Your task to perform on an android device: turn on translation in the chrome app Image 0: 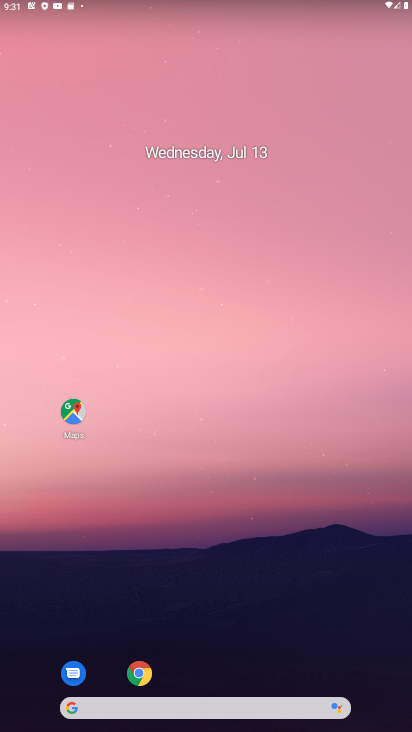
Step 0: click (139, 670)
Your task to perform on an android device: turn on translation in the chrome app Image 1: 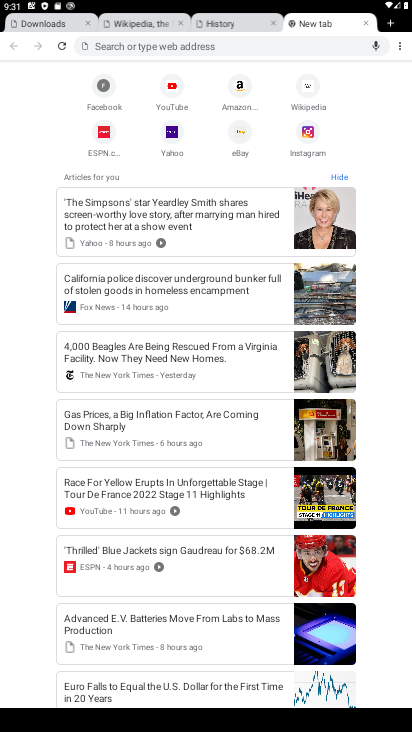
Step 1: click (393, 43)
Your task to perform on an android device: turn on translation in the chrome app Image 2: 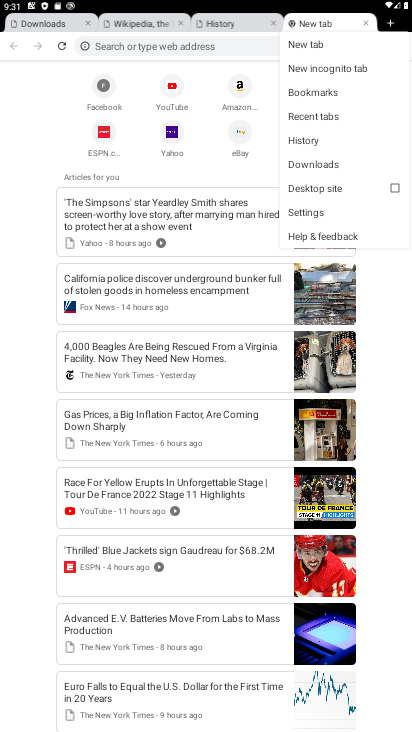
Step 2: click (317, 216)
Your task to perform on an android device: turn on translation in the chrome app Image 3: 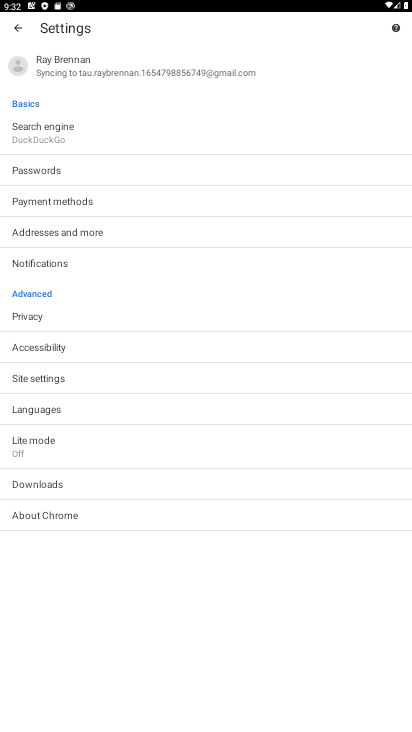
Step 3: click (58, 419)
Your task to perform on an android device: turn on translation in the chrome app Image 4: 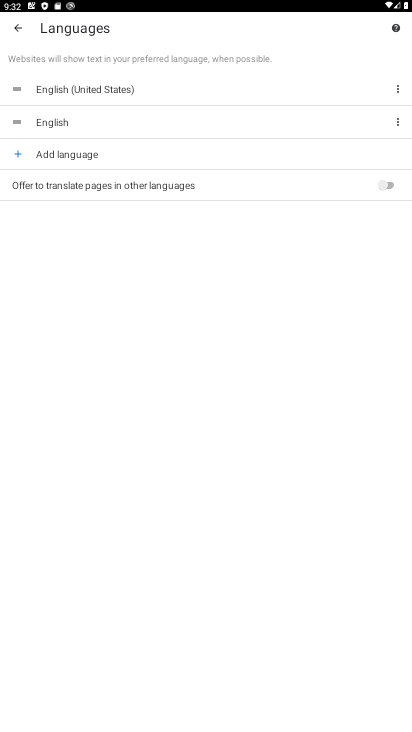
Step 4: click (388, 184)
Your task to perform on an android device: turn on translation in the chrome app Image 5: 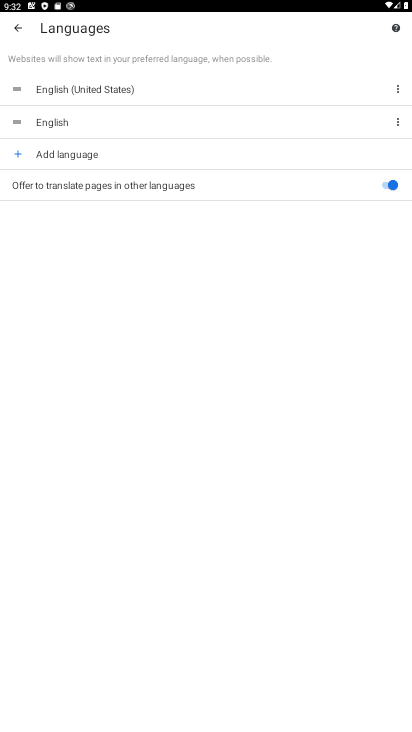
Step 5: task complete